Your task to perform on an android device: Open battery settings Image 0: 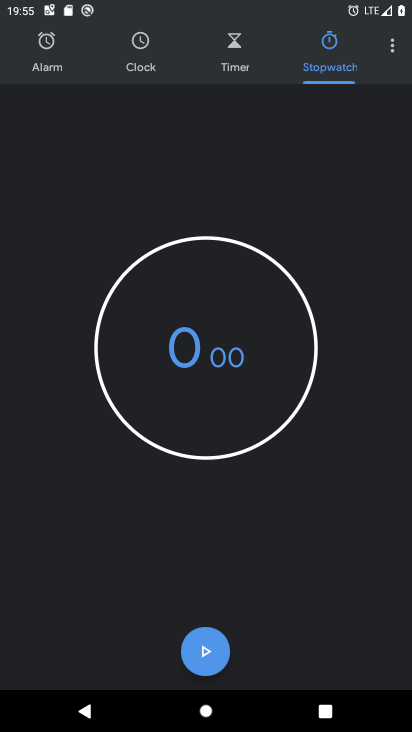
Step 0: press home button
Your task to perform on an android device: Open battery settings Image 1: 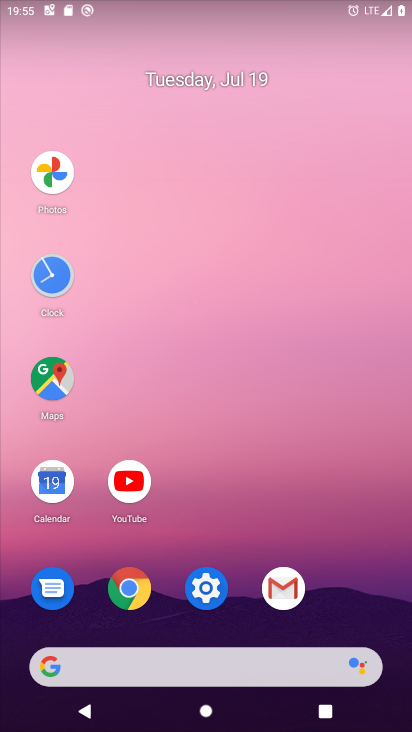
Step 1: click (208, 584)
Your task to perform on an android device: Open battery settings Image 2: 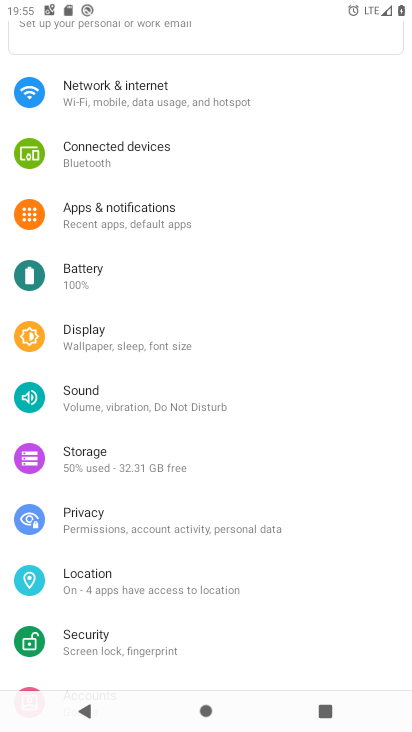
Step 2: click (81, 267)
Your task to perform on an android device: Open battery settings Image 3: 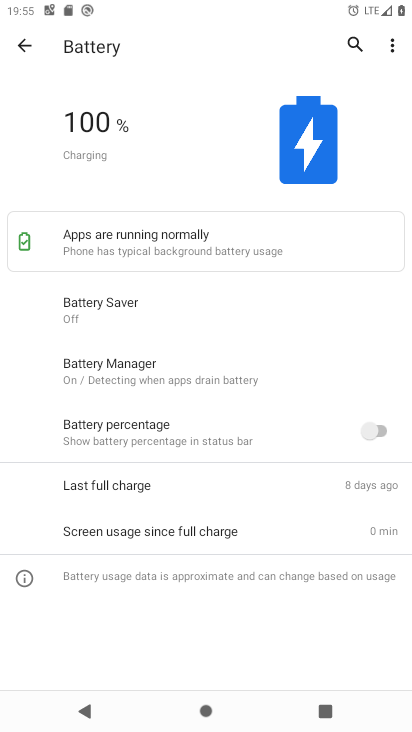
Step 3: task complete